Your task to perform on an android device: empty trash in the gmail app Image 0: 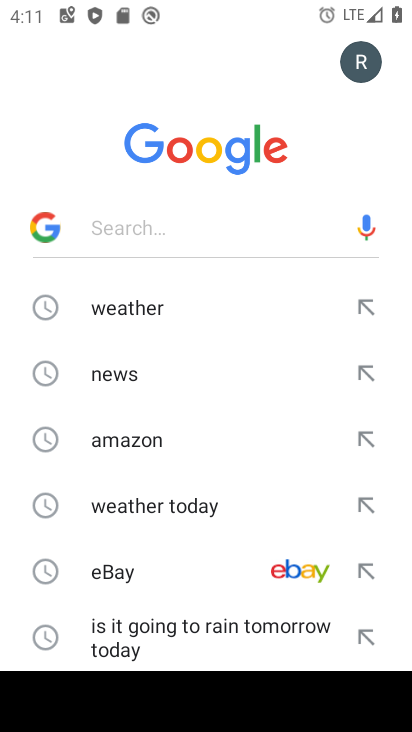
Step 0: press home button
Your task to perform on an android device: empty trash in the gmail app Image 1: 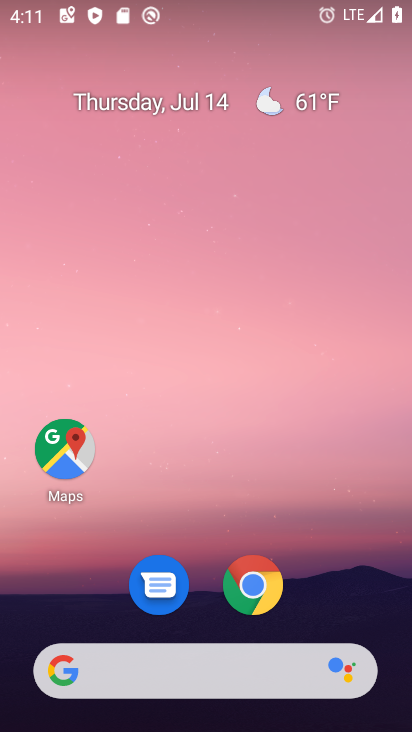
Step 1: drag from (233, 515) to (261, 3)
Your task to perform on an android device: empty trash in the gmail app Image 2: 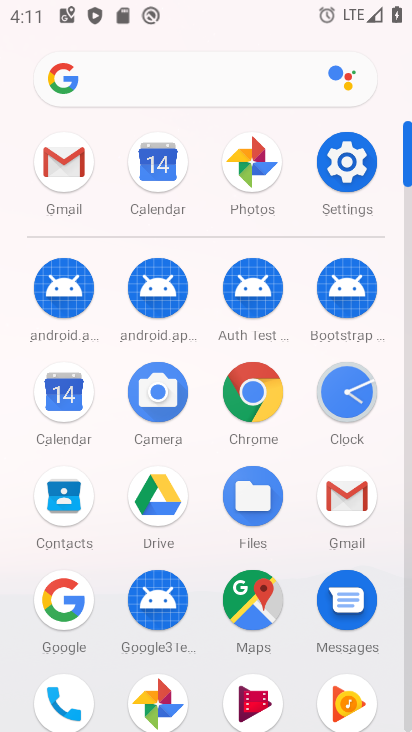
Step 2: click (62, 172)
Your task to perform on an android device: empty trash in the gmail app Image 3: 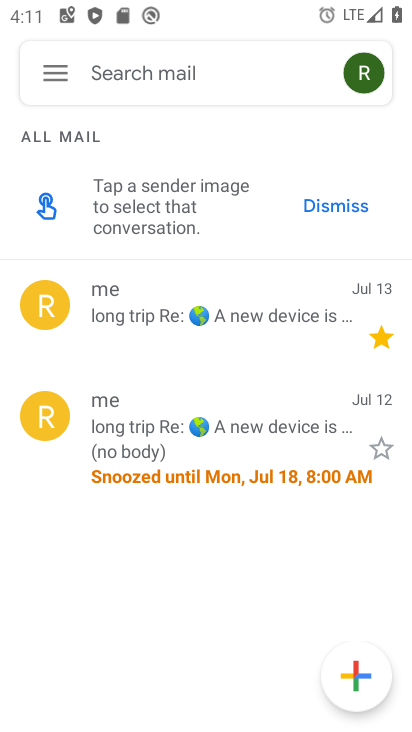
Step 3: click (64, 78)
Your task to perform on an android device: empty trash in the gmail app Image 4: 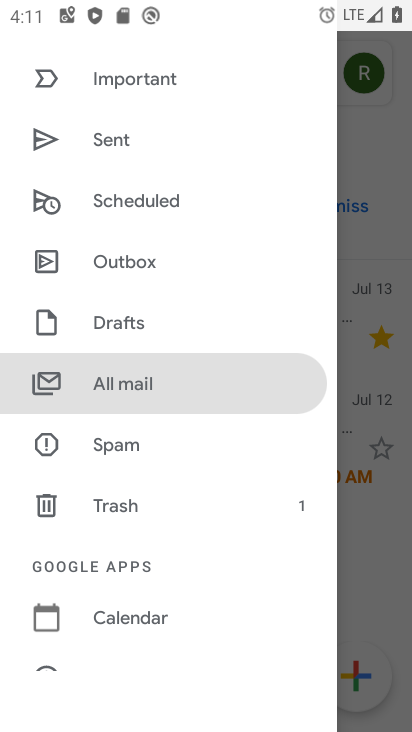
Step 4: click (109, 497)
Your task to perform on an android device: empty trash in the gmail app Image 5: 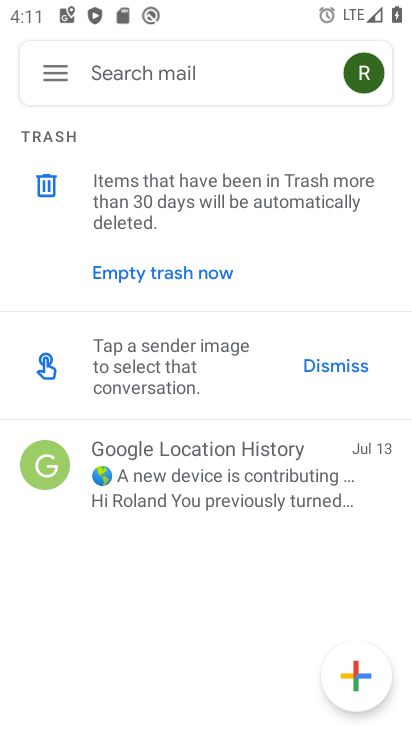
Step 5: click (186, 271)
Your task to perform on an android device: empty trash in the gmail app Image 6: 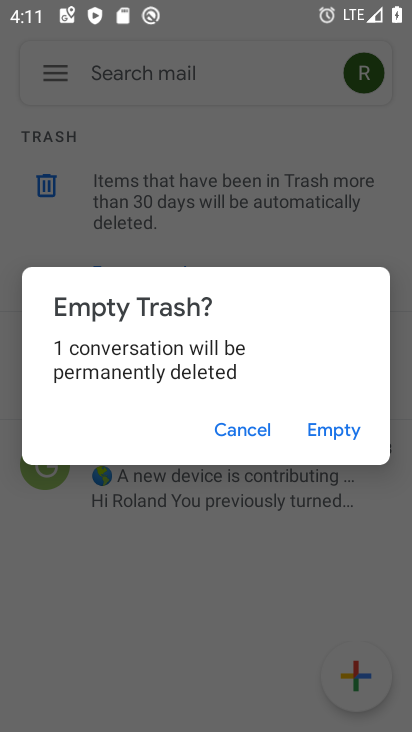
Step 6: click (330, 431)
Your task to perform on an android device: empty trash in the gmail app Image 7: 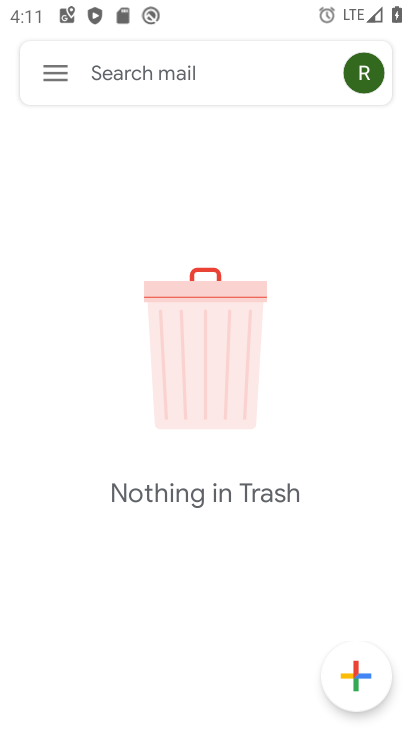
Step 7: task complete